Your task to perform on an android device: toggle notifications settings in the gmail app Image 0: 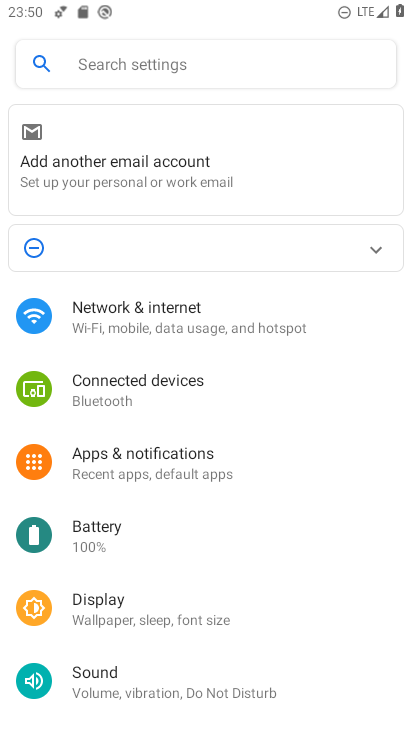
Step 0: drag from (233, 636) to (251, 426)
Your task to perform on an android device: toggle notifications settings in the gmail app Image 1: 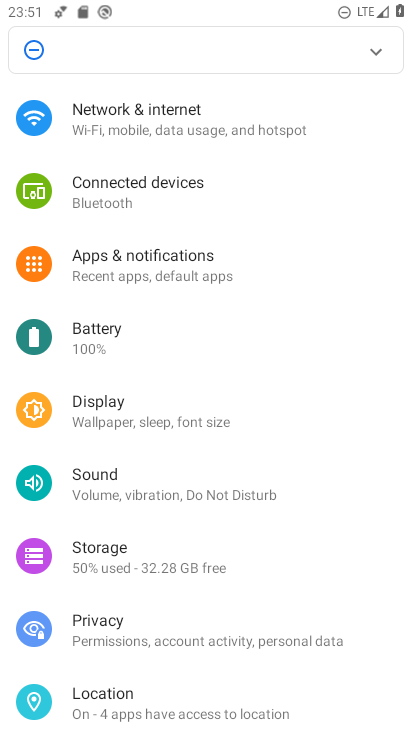
Step 1: press home button
Your task to perform on an android device: toggle notifications settings in the gmail app Image 2: 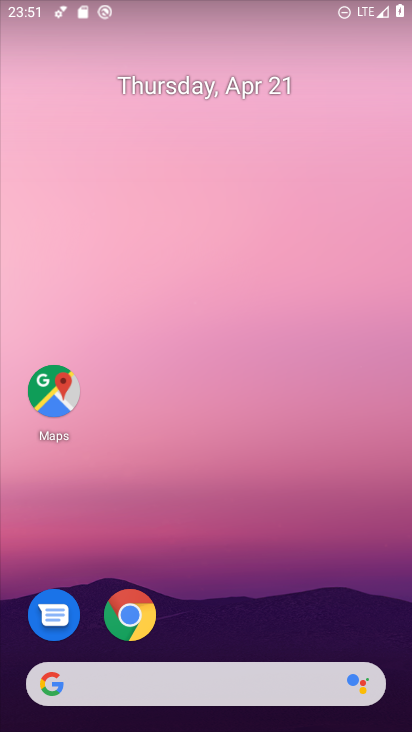
Step 2: drag from (215, 648) to (213, 186)
Your task to perform on an android device: toggle notifications settings in the gmail app Image 3: 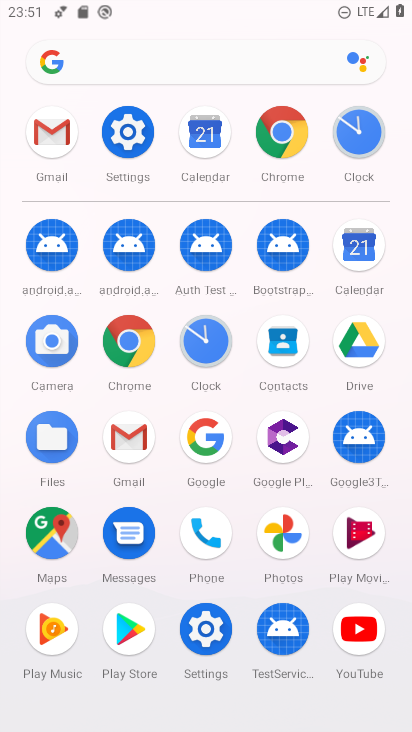
Step 3: click (126, 429)
Your task to perform on an android device: toggle notifications settings in the gmail app Image 4: 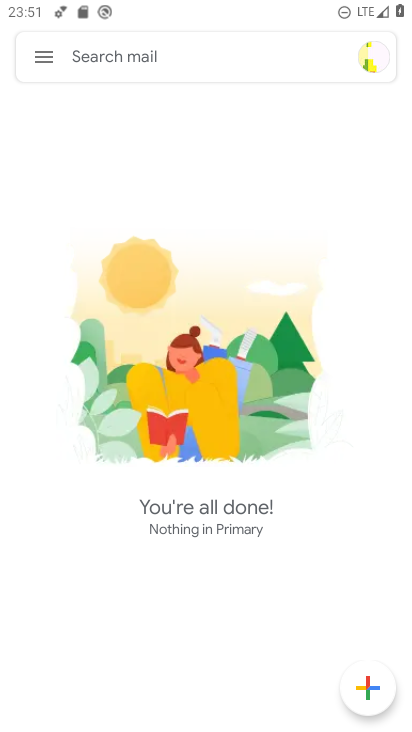
Step 4: click (43, 55)
Your task to perform on an android device: toggle notifications settings in the gmail app Image 5: 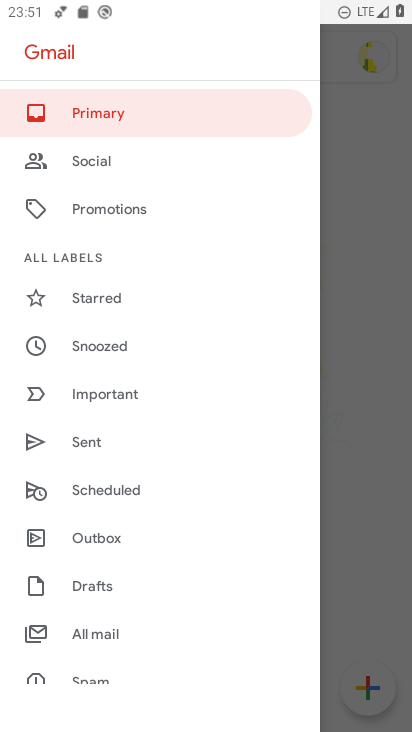
Step 5: drag from (144, 619) to (191, 152)
Your task to perform on an android device: toggle notifications settings in the gmail app Image 6: 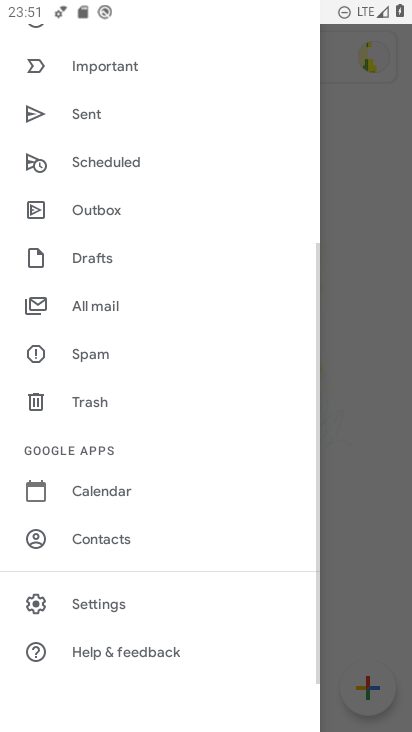
Step 6: click (130, 601)
Your task to perform on an android device: toggle notifications settings in the gmail app Image 7: 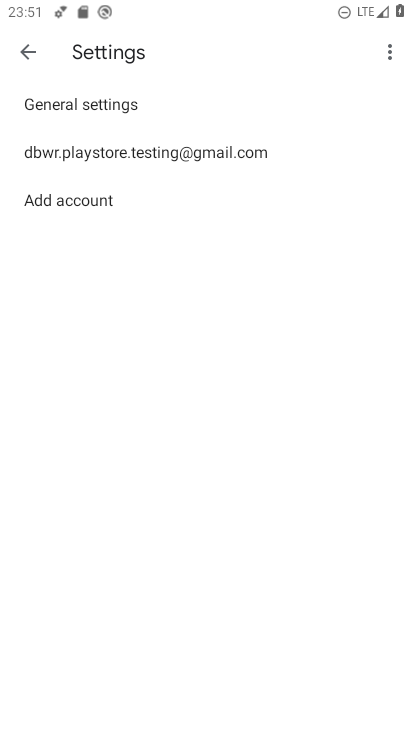
Step 7: click (151, 106)
Your task to perform on an android device: toggle notifications settings in the gmail app Image 8: 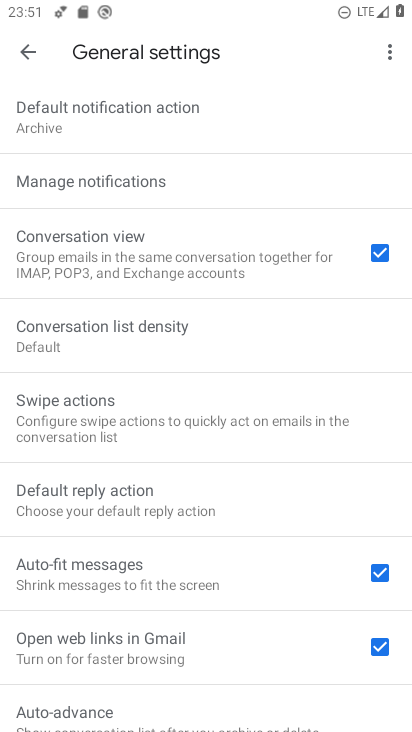
Step 8: click (185, 186)
Your task to perform on an android device: toggle notifications settings in the gmail app Image 9: 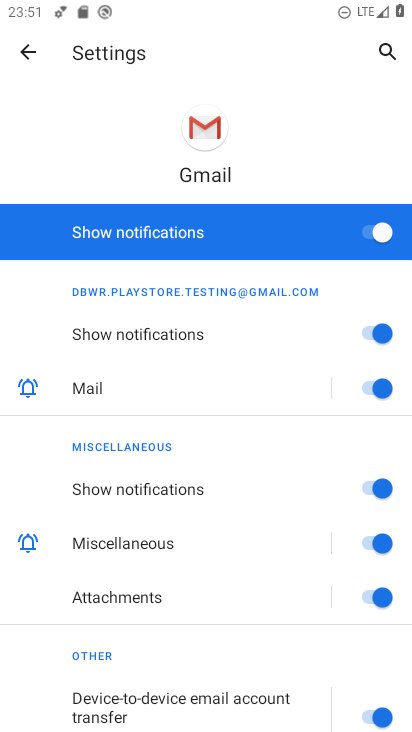
Step 9: click (373, 235)
Your task to perform on an android device: toggle notifications settings in the gmail app Image 10: 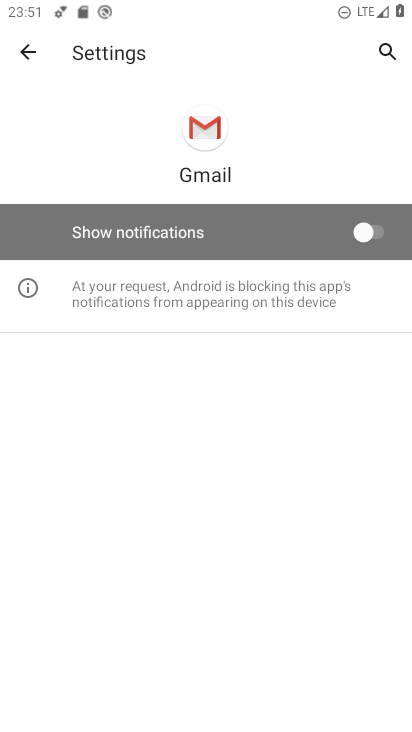
Step 10: task complete